Your task to perform on an android device: Open the web browser Image 0: 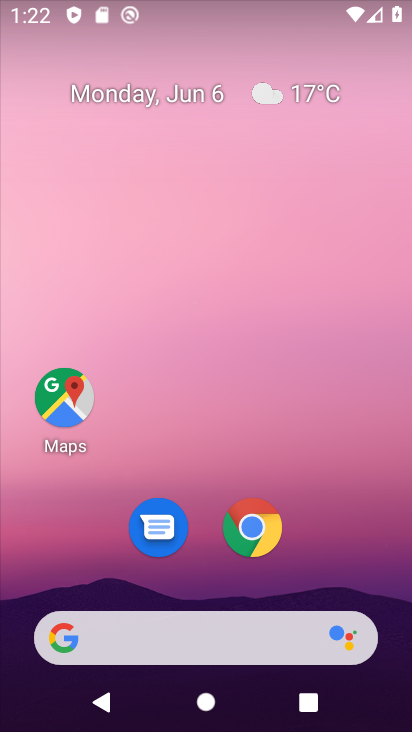
Step 0: click (254, 527)
Your task to perform on an android device: Open the web browser Image 1: 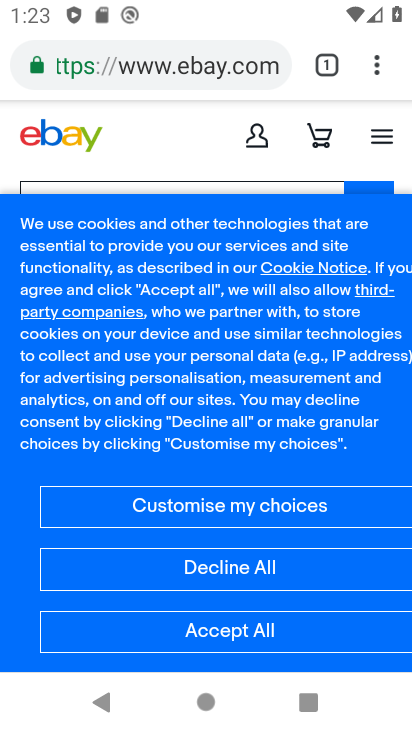
Step 1: task complete